Your task to perform on an android device: open the mobile data screen to see how much data has been used Image 0: 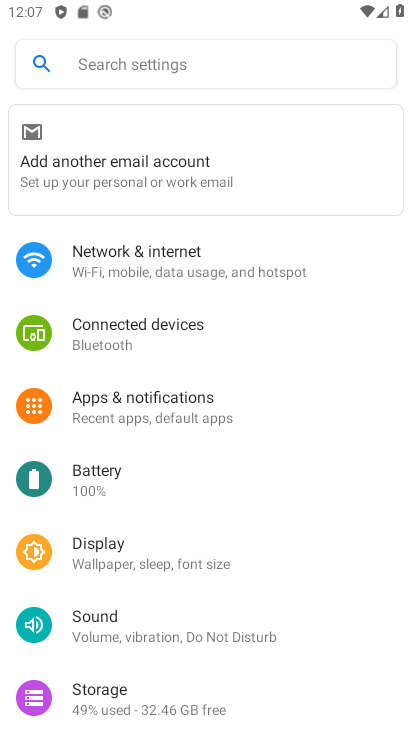
Step 0: click (278, 268)
Your task to perform on an android device: open the mobile data screen to see how much data has been used Image 1: 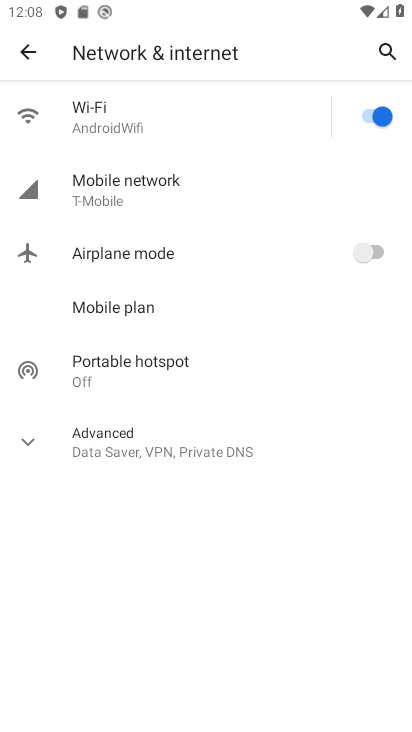
Step 1: click (135, 188)
Your task to perform on an android device: open the mobile data screen to see how much data has been used Image 2: 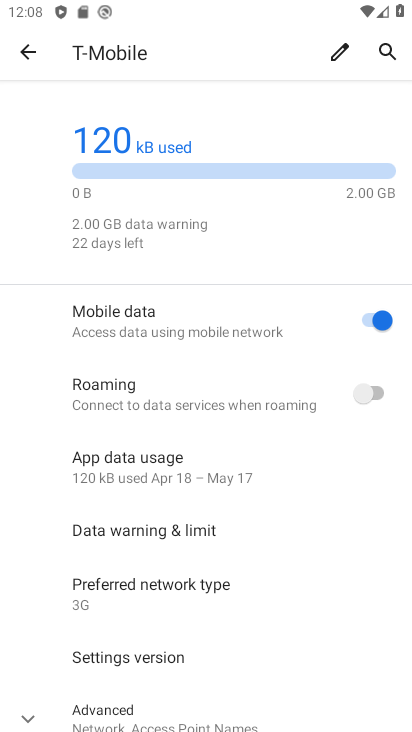
Step 2: click (215, 490)
Your task to perform on an android device: open the mobile data screen to see how much data has been used Image 3: 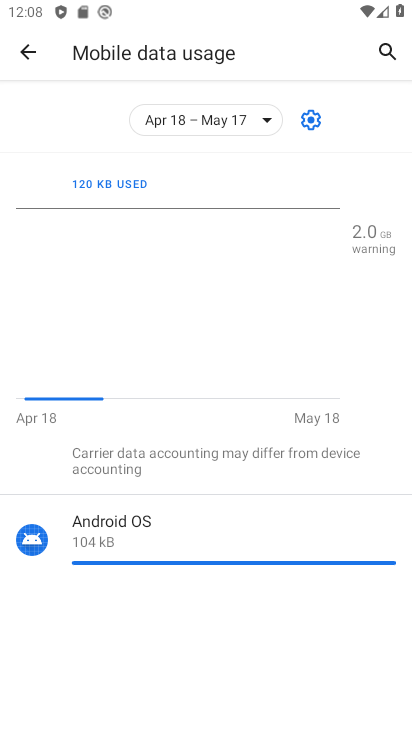
Step 3: task complete